Your task to perform on an android device: Go to privacy settings Image 0: 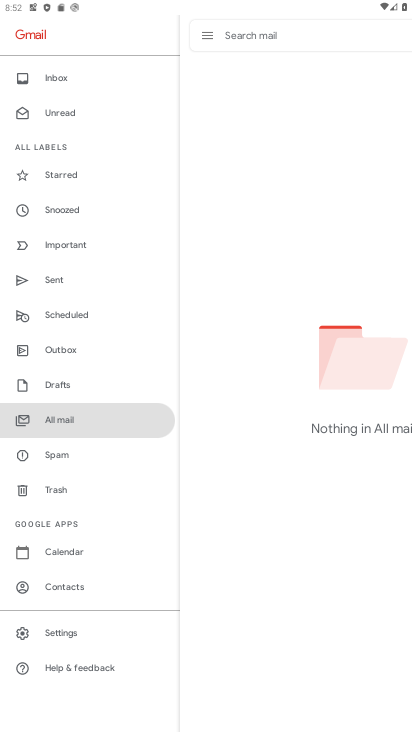
Step 0: press home button
Your task to perform on an android device: Go to privacy settings Image 1: 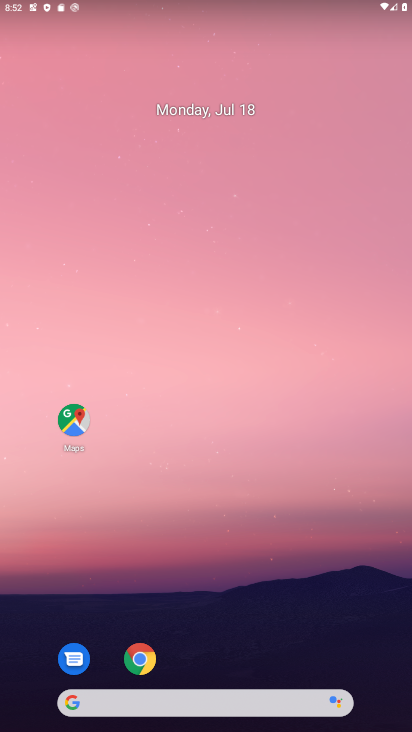
Step 1: drag from (326, 685) to (380, 29)
Your task to perform on an android device: Go to privacy settings Image 2: 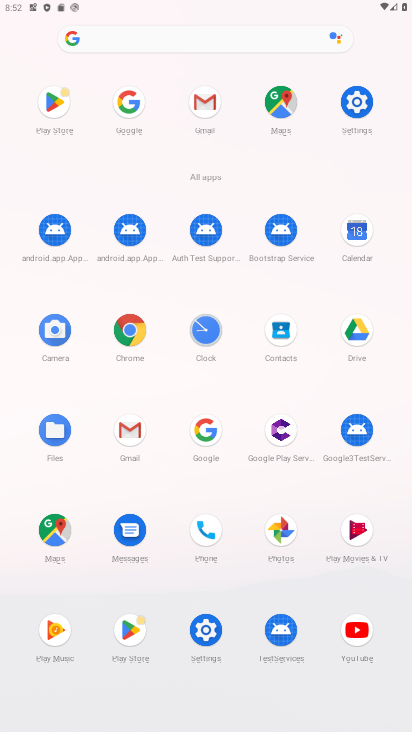
Step 2: click (372, 111)
Your task to perform on an android device: Go to privacy settings Image 3: 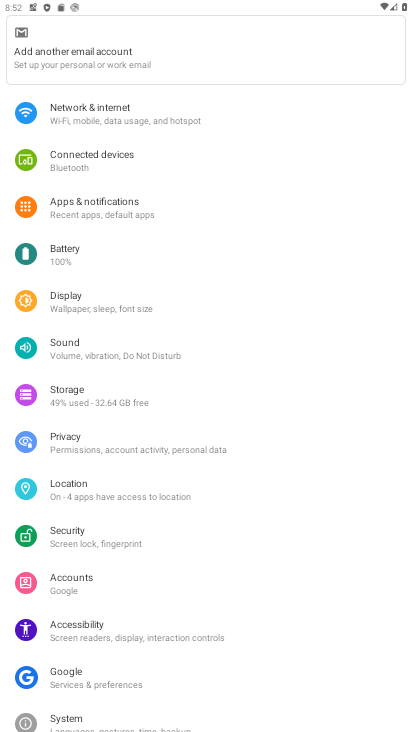
Step 3: click (79, 447)
Your task to perform on an android device: Go to privacy settings Image 4: 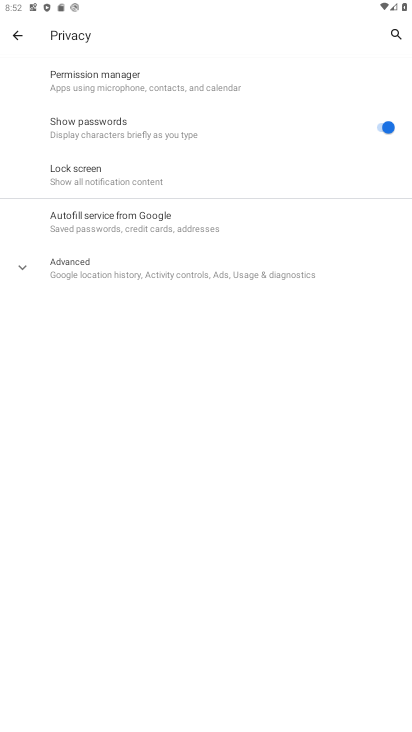
Step 4: task complete